Your task to perform on an android device: Open my contact list Image 0: 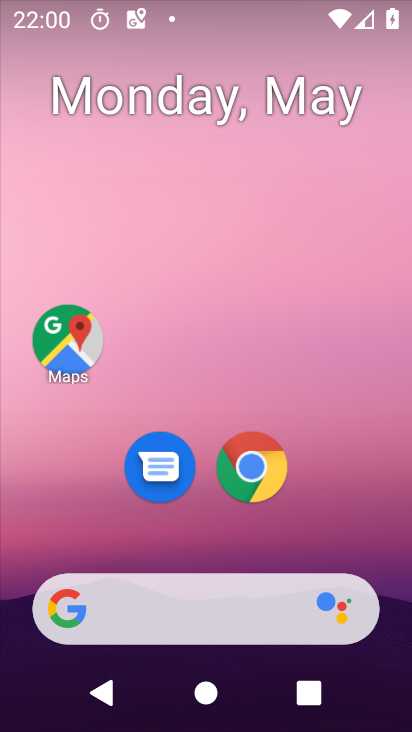
Step 0: press home button
Your task to perform on an android device: Open my contact list Image 1: 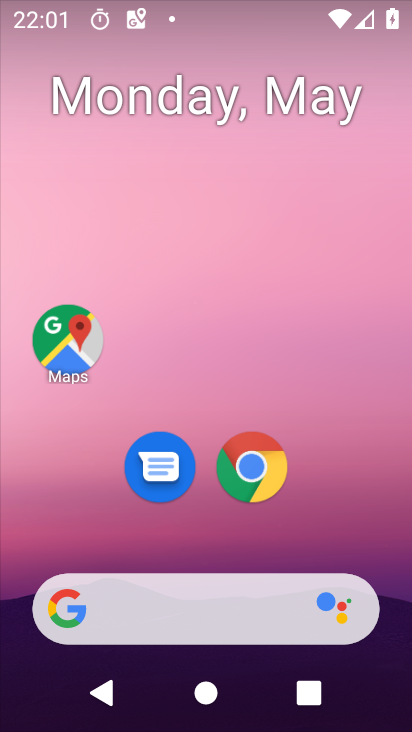
Step 1: drag from (219, 644) to (260, 125)
Your task to perform on an android device: Open my contact list Image 2: 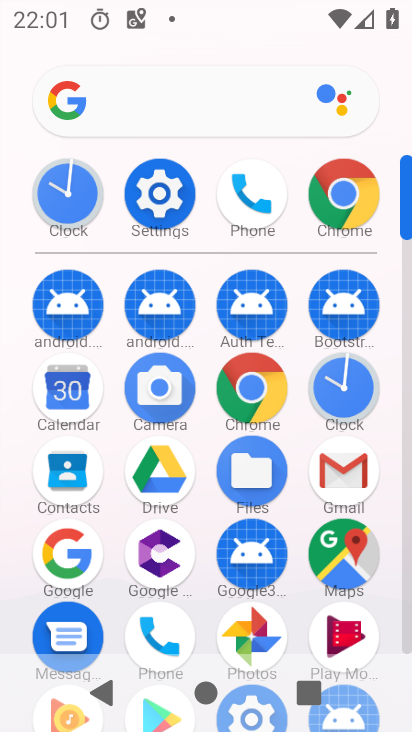
Step 2: click (241, 197)
Your task to perform on an android device: Open my contact list Image 3: 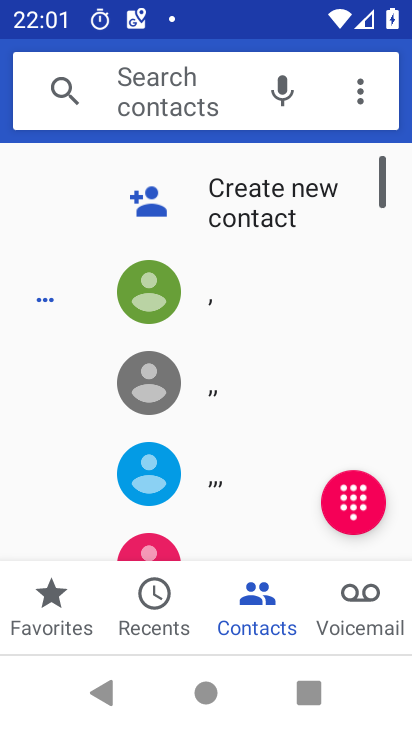
Step 3: task complete